Your task to perform on an android device: Open Chrome and go to settings Image 0: 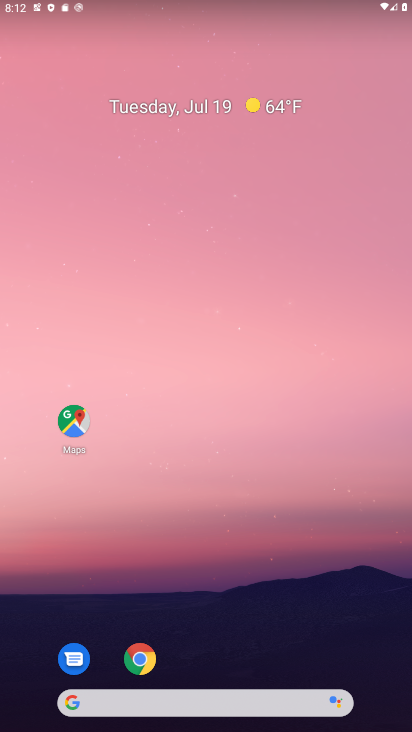
Step 0: click (139, 670)
Your task to perform on an android device: Open Chrome and go to settings Image 1: 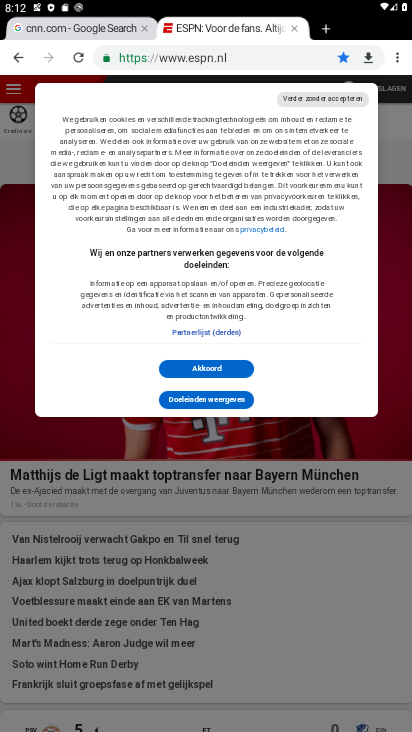
Step 1: click (402, 53)
Your task to perform on an android device: Open Chrome and go to settings Image 2: 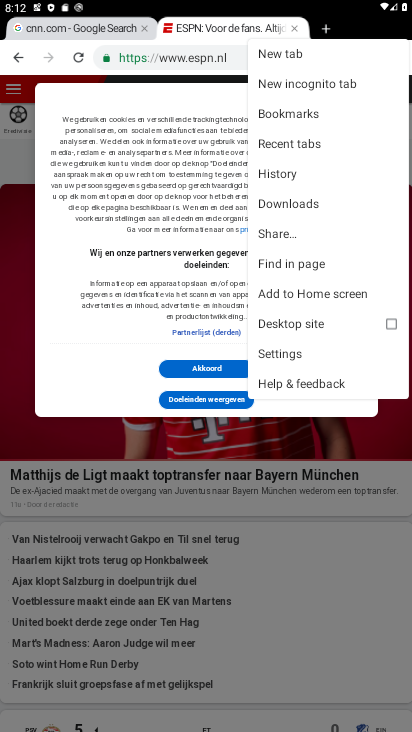
Step 2: click (262, 357)
Your task to perform on an android device: Open Chrome and go to settings Image 3: 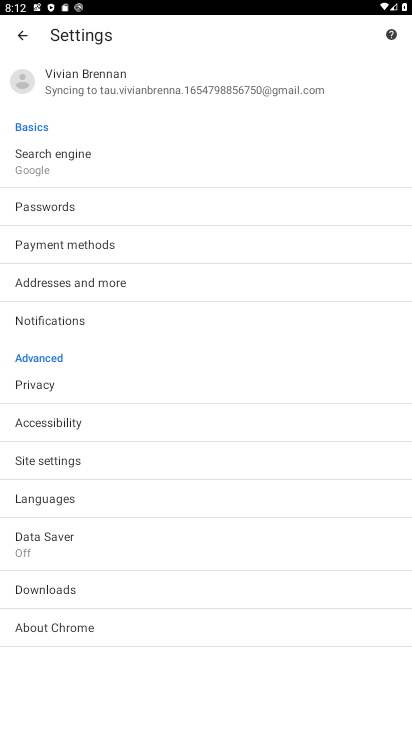
Step 3: task complete